Your task to perform on an android device: turn on the 12-hour format for clock Image 0: 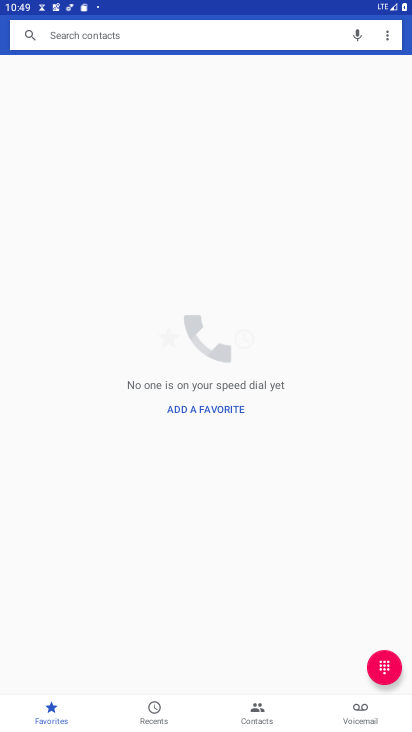
Step 0: press home button
Your task to perform on an android device: turn on the 12-hour format for clock Image 1: 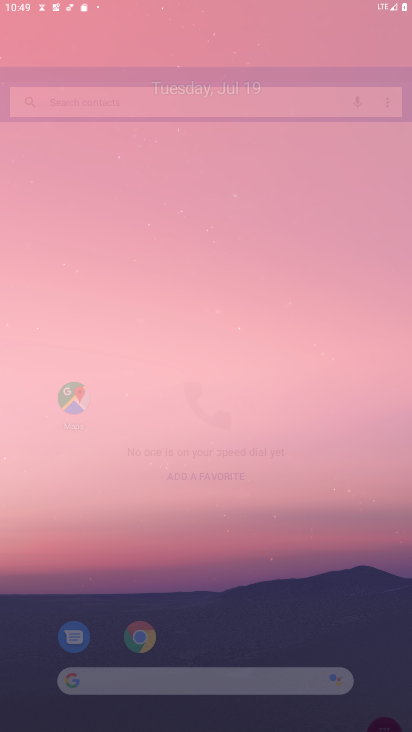
Step 1: drag from (254, 628) to (250, 0)
Your task to perform on an android device: turn on the 12-hour format for clock Image 2: 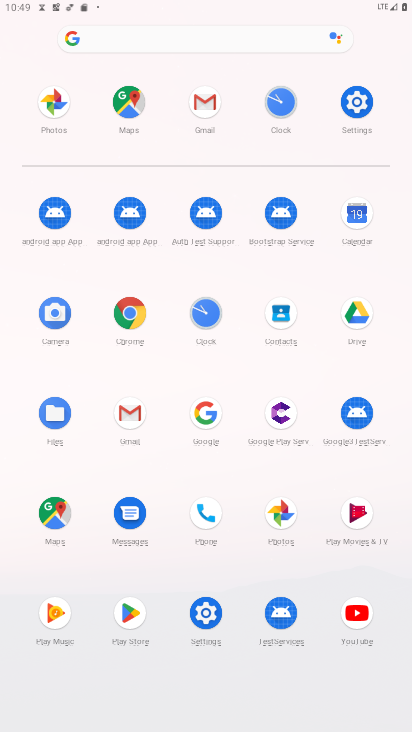
Step 2: click (207, 312)
Your task to perform on an android device: turn on the 12-hour format for clock Image 3: 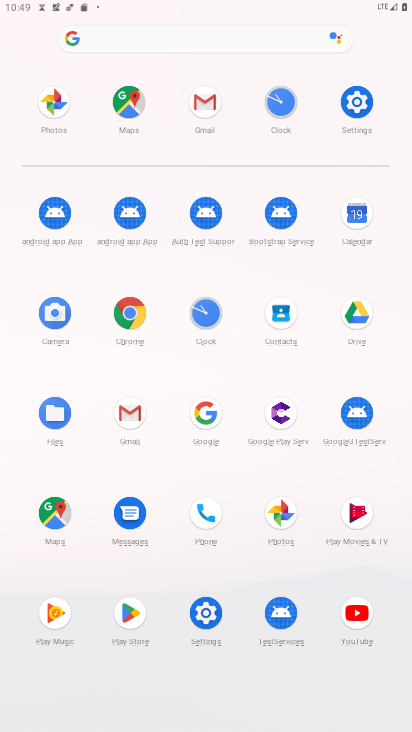
Step 3: click (206, 311)
Your task to perform on an android device: turn on the 12-hour format for clock Image 4: 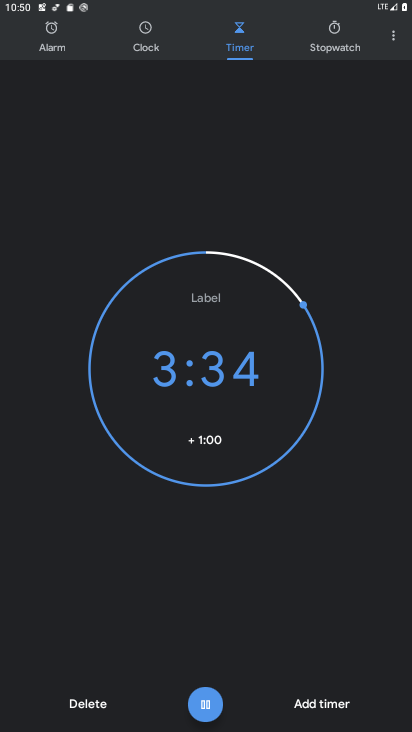
Step 4: click (392, 28)
Your task to perform on an android device: turn on the 12-hour format for clock Image 5: 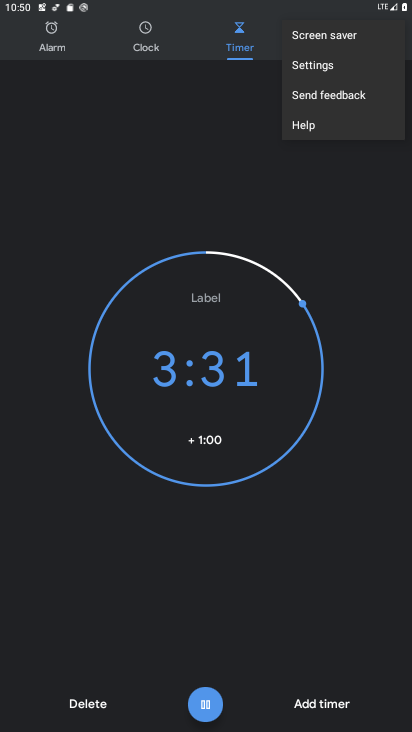
Step 5: click (337, 66)
Your task to perform on an android device: turn on the 12-hour format for clock Image 6: 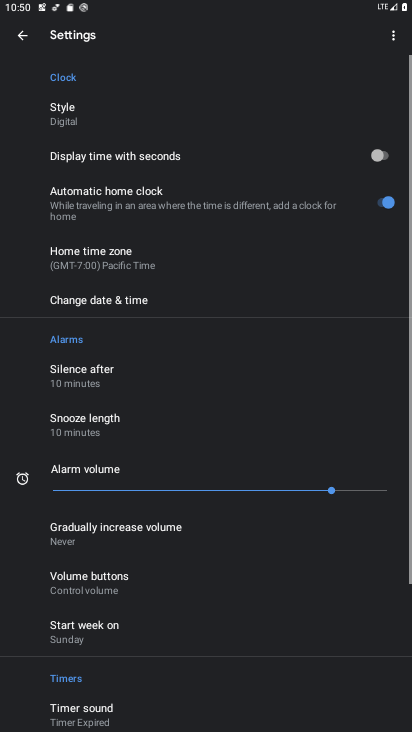
Step 6: drag from (303, 477) to (283, 89)
Your task to perform on an android device: turn on the 12-hour format for clock Image 7: 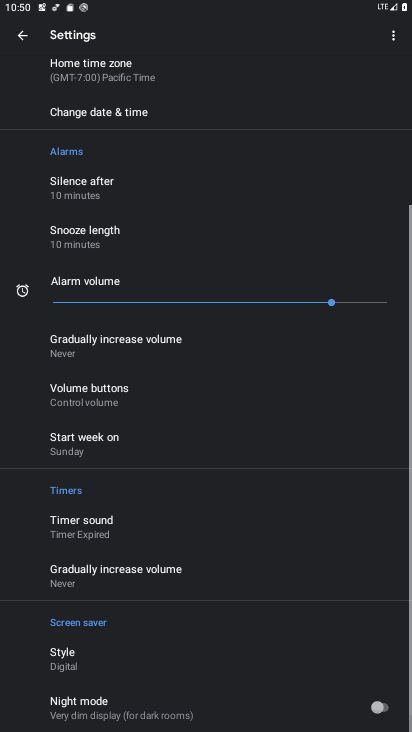
Step 7: drag from (224, 118) to (183, 652)
Your task to perform on an android device: turn on the 12-hour format for clock Image 8: 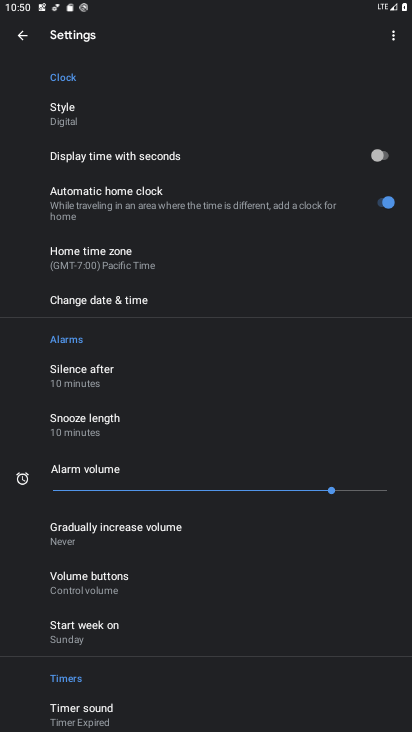
Step 8: click (131, 297)
Your task to perform on an android device: turn on the 12-hour format for clock Image 9: 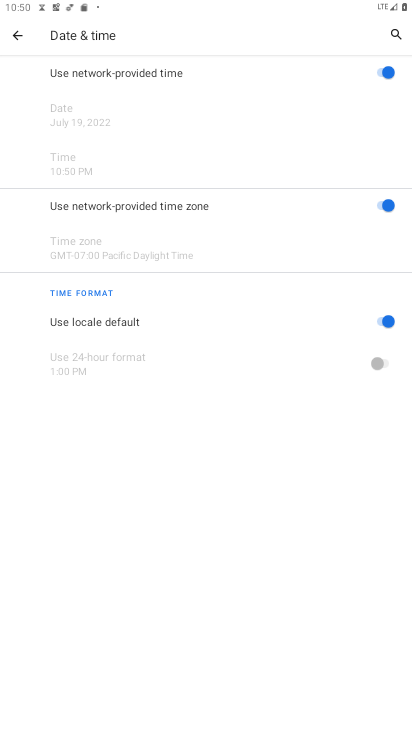
Step 9: task complete